Your task to perform on an android device: Open the phone app and click the voicemail tab. Image 0: 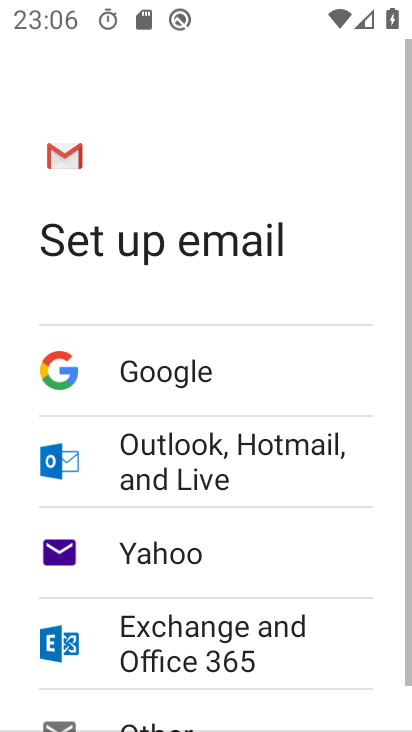
Step 0: press home button
Your task to perform on an android device: Open the phone app and click the voicemail tab. Image 1: 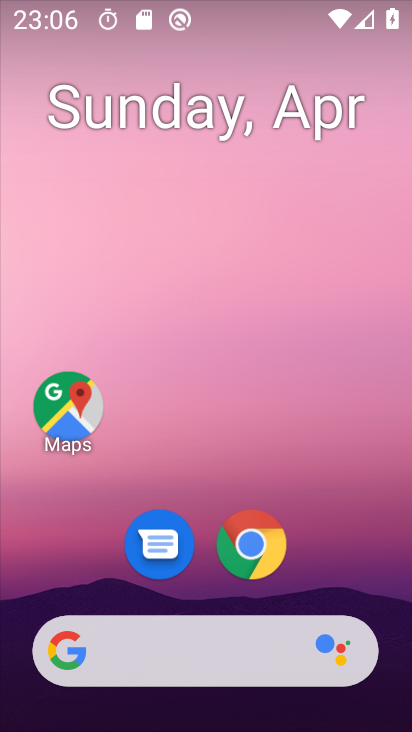
Step 1: drag from (312, 559) to (334, 345)
Your task to perform on an android device: Open the phone app and click the voicemail tab. Image 2: 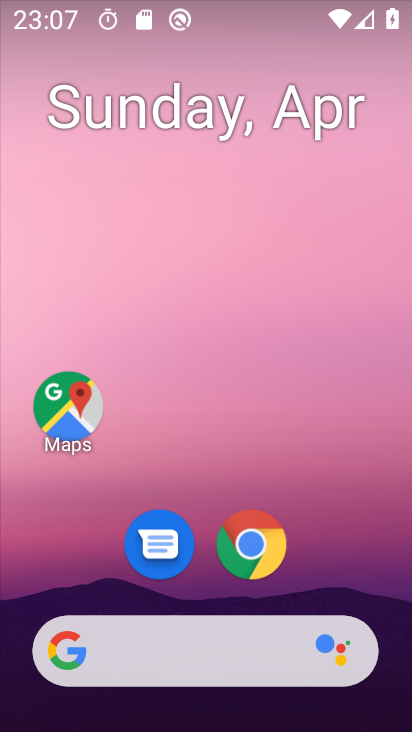
Step 2: drag from (317, 512) to (341, 289)
Your task to perform on an android device: Open the phone app and click the voicemail tab. Image 3: 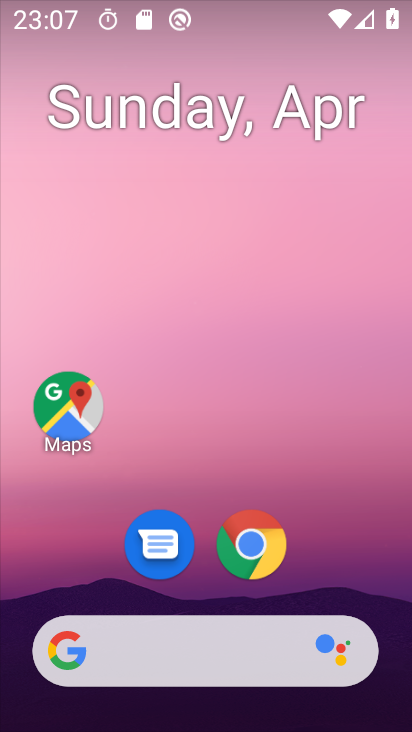
Step 3: drag from (322, 494) to (346, 288)
Your task to perform on an android device: Open the phone app and click the voicemail tab. Image 4: 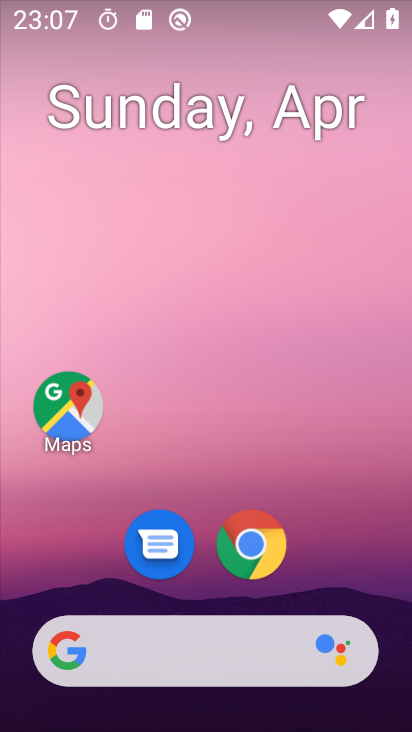
Step 4: drag from (308, 570) to (319, 272)
Your task to perform on an android device: Open the phone app and click the voicemail tab. Image 5: 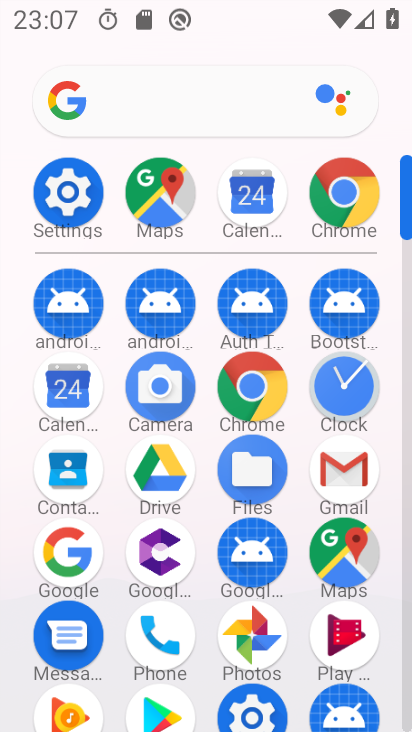
Step 5: click (143, 621)
Your task to perform on an android device: Open the phone app and click the voicemail tab. Image 6: 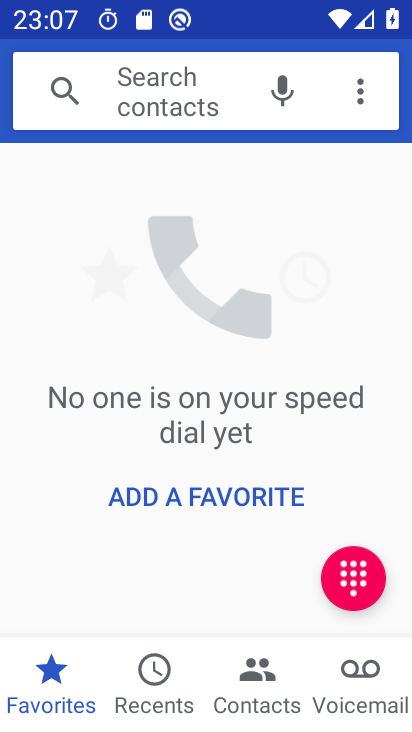
Step 6: click (351, 665)
Your task to perform on an android device: Open the phone app and click the voicemail tab. Image 7: 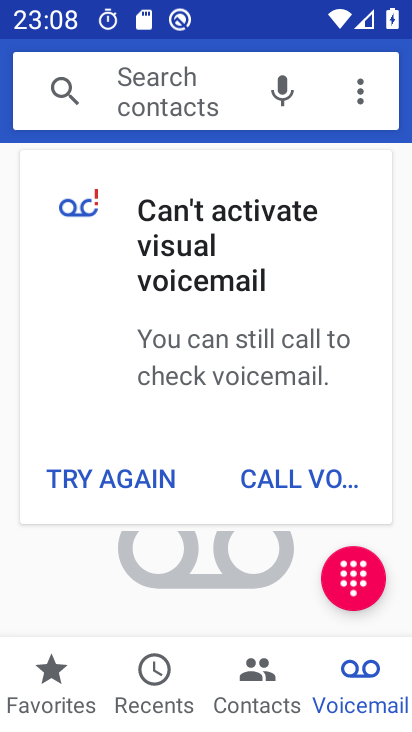
Step 7: task complete